Your task to perform on an android device: Open Yahoo.com Image 0: 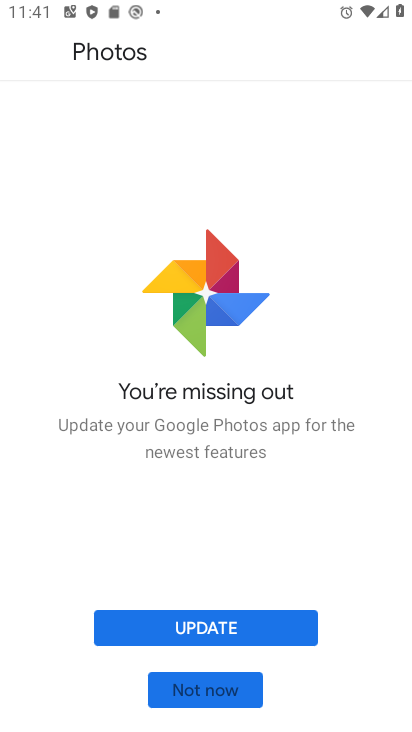
Step 0: press home button
Your task to perform on an android device: Open Yahoo.com Image 1: 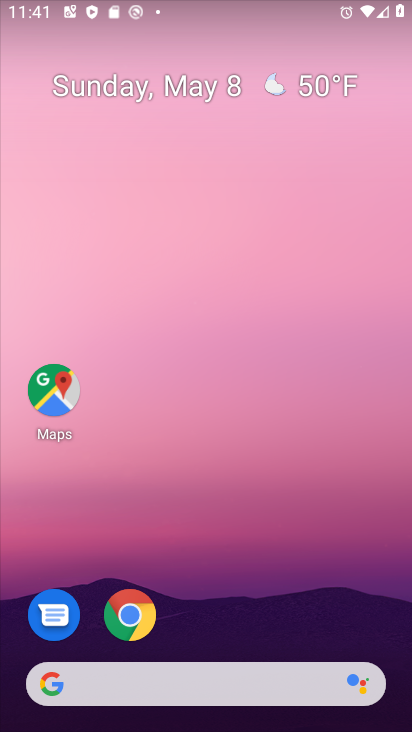
Step 1: drag from (371, 676) to (381, 206)
Your task to perform on an android device: Open Yahoo.com Image 2: 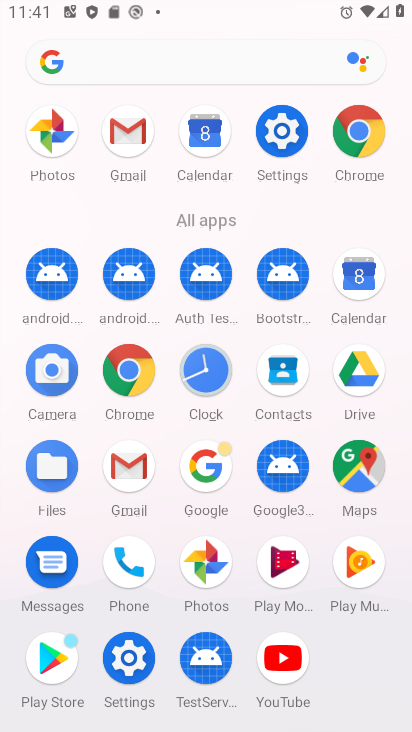
Step 2: click (376, 134)
Your task to perform on an android device: Open Yahoo.com Image 3: 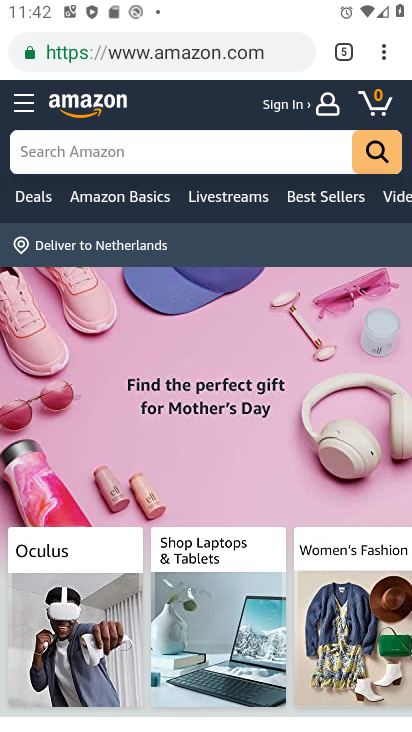
Step 3: click (344, 50)
Your task to perform on an android device: Open Yahoo.com Image 4: 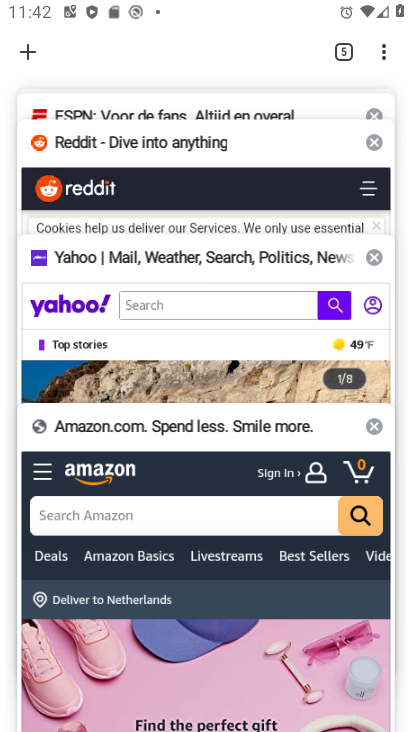
Step 4: click (27, 58)
Your task to perform on an android device: Open Yahoo.com Image 5: 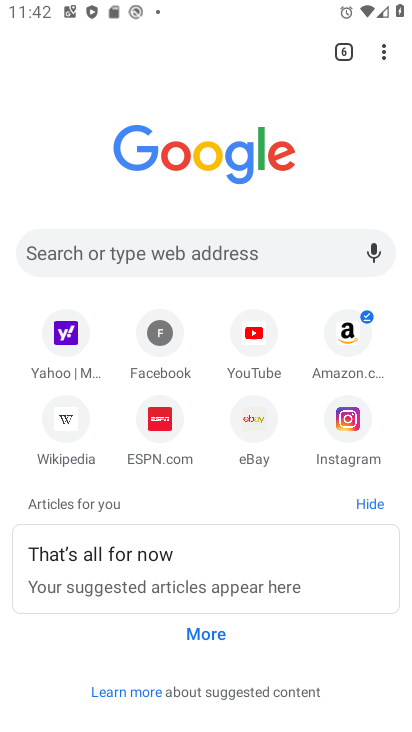
Step 5: click (57, 351)
Your task to perform on an android device: Open Yahoo.com Image 6: 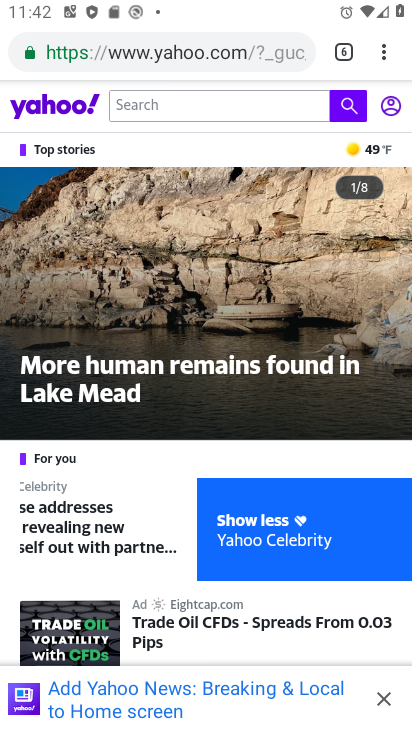
Step 6: task complete